Your task to perform on an android device: delete the emails in spam in the gmail app Image 0: 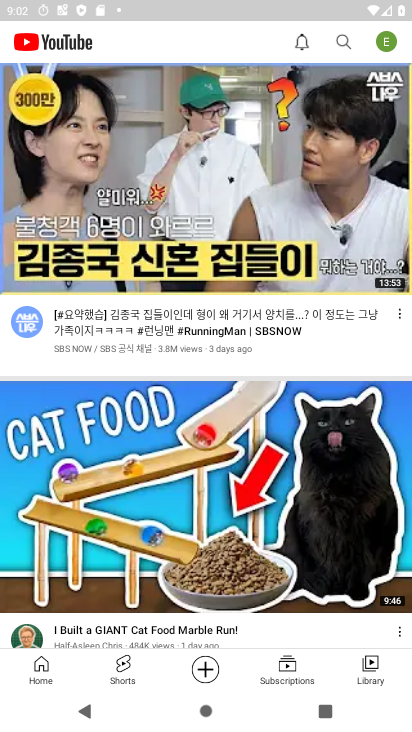
Step 0: press home button
Your task to perform on an android device: delete the emails in spam in the gmail app Image 1: 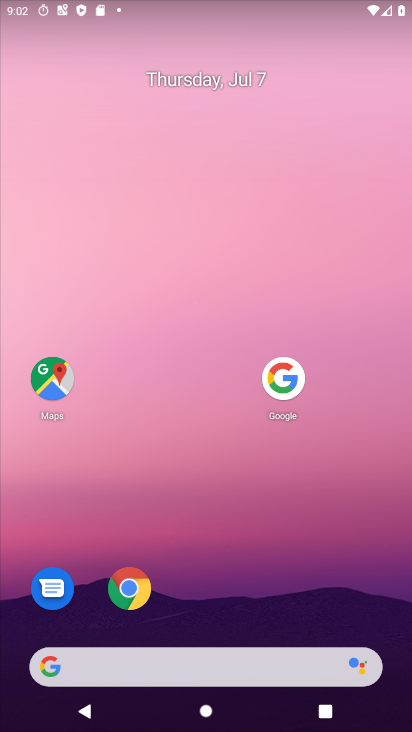
Step 1: drag from (162, 660) to (354, 104)
Your task to perform on an android device: delete the emails in spam in the gmail app Image 2: 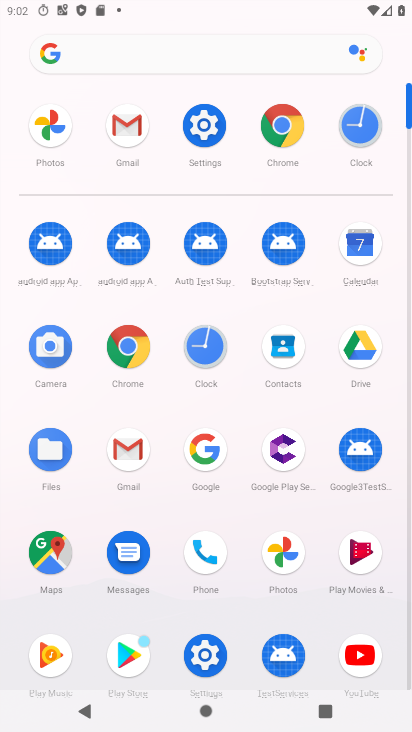
Step 2: click (122, 131)
Your task to perform on an android device: delete the emails in spam in the gmail app Image 3: 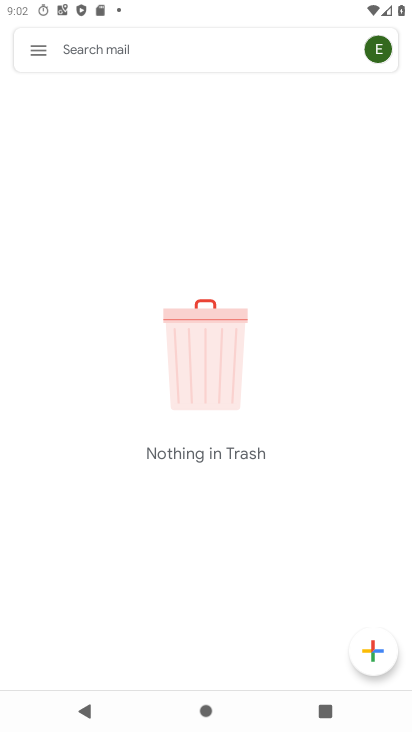
Step 3: click (41, 45)
Your task to perform on an android device: delete the emails in spam in the gmail app Image 4: 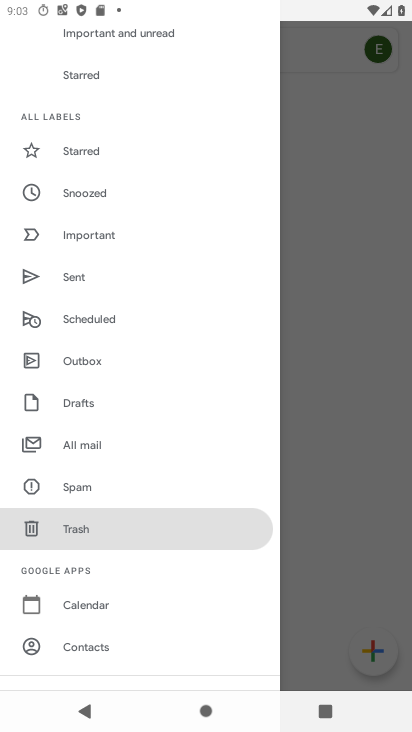
Step 4: click (104, 492)
Your task to perform on an android device: delete the emails in spam in the gmail app Image 5: 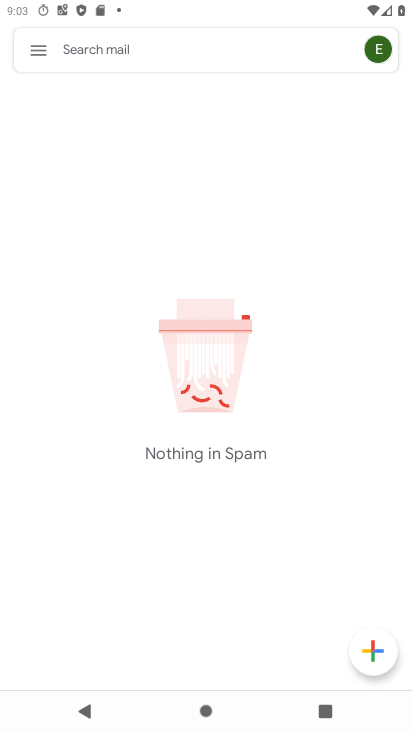
Step 5: task complete